Your task to perform on an android device: read, delete, or share a saved page in the chrome app Image 0: 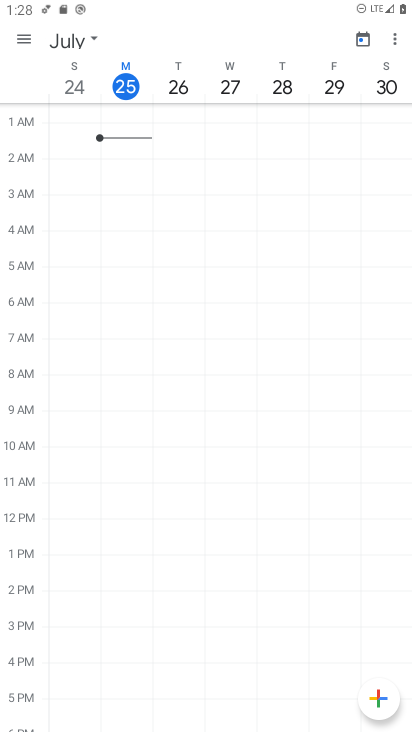
Step 0: press home button
Your task to perform on an android device: read, delete, or share a saved page in the chrome app Image 1: 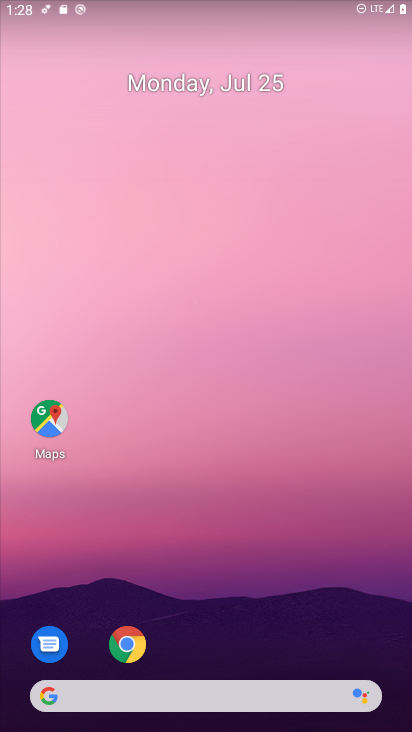
Step 1: drag from (184, 728) to (172, 208)
Your task to perform on an android device: read, delete, or share a saved page in the chrome app Image 2: 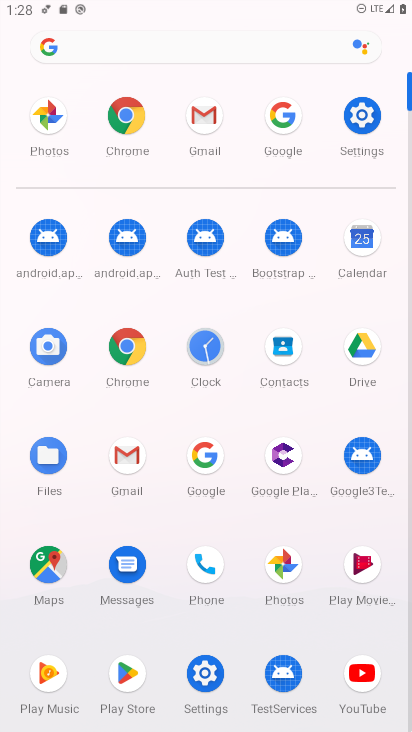
Step 2: click (131, 110)
Your task to perform on an android device: read, delete, or share a saved page in the chrome app Image 3: 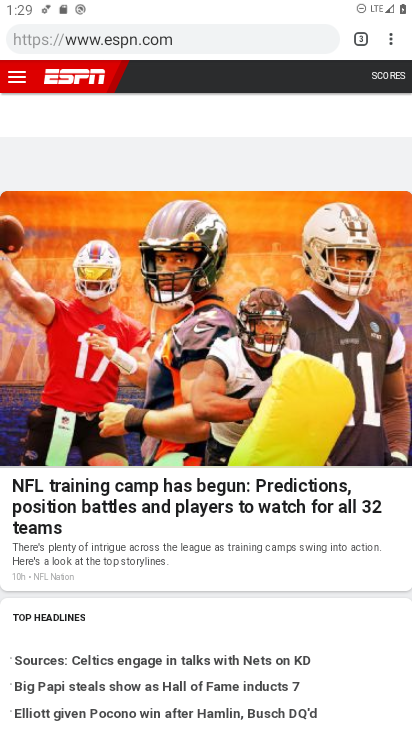
Step 3: click (390, 43)
Your task to perform on an android device: read, delete, or share a saved page in the chrome app Image 4: 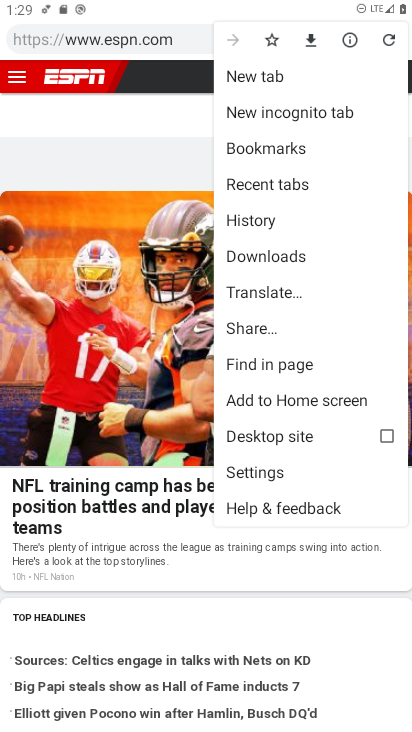
Step 4: click (268, 254)
Your task to perform on an android device: read, delete, or share a saved page in the chrome app Image 5: 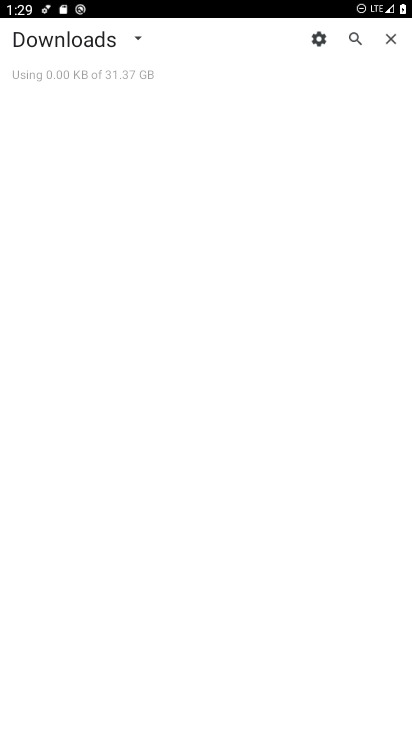
Step 5: click (139, 42)
Your task to perform on an android device: read, delete, or share a saved page in the chrome app Image 6: 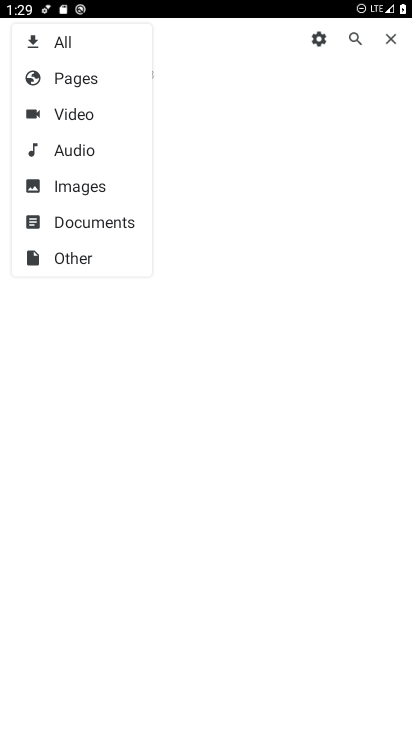
Step 6: click (71, 81)
Your task to perform on an android device: read, delete, or share a saved page in the chrome app Image 7: 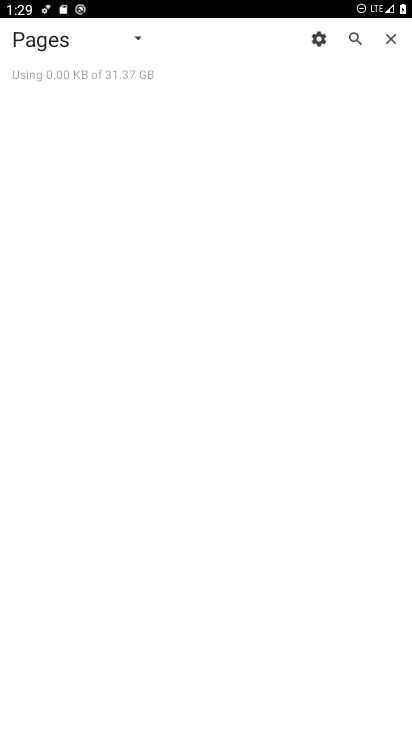
Step 7: task complete